Your task to perform on an android device: Open wifi settings Image 0: 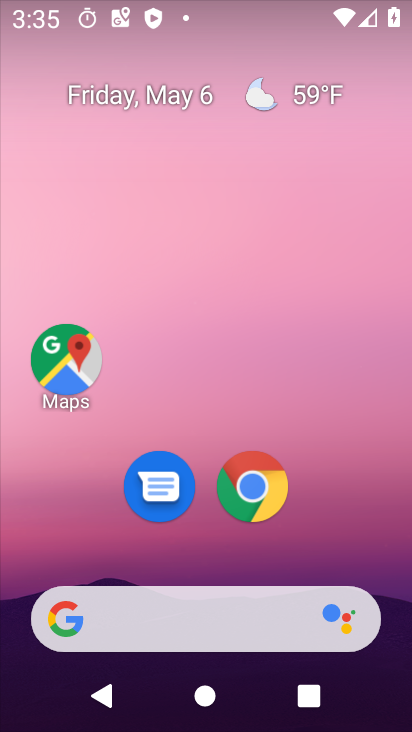
Step 0: drag from (317, 528) to (224, 84)
Your task to perform on an android device: Open wifi settings Image 1: 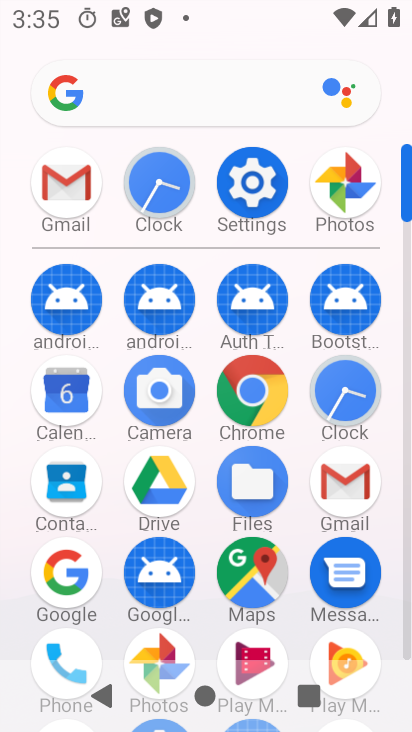
Step 1: click (242, 171)
Your task to perform on an android device: Open wifi settings Image 2: 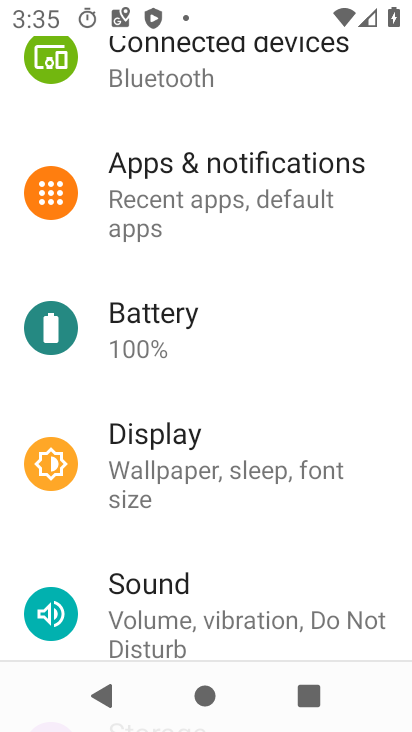
Step 2: drag from (230, 301) to (241, 713)
Your task to perform on an android device: Open wifi settings Image 3: 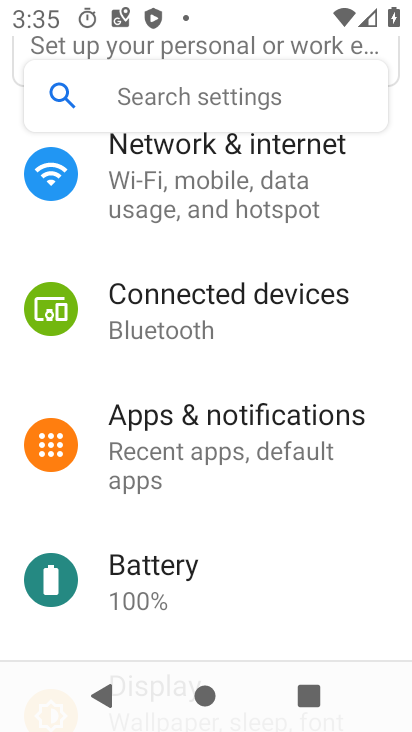
Step 3: click (204, 176)
Your task to perform on an android device: Open wifi settings Image 4: 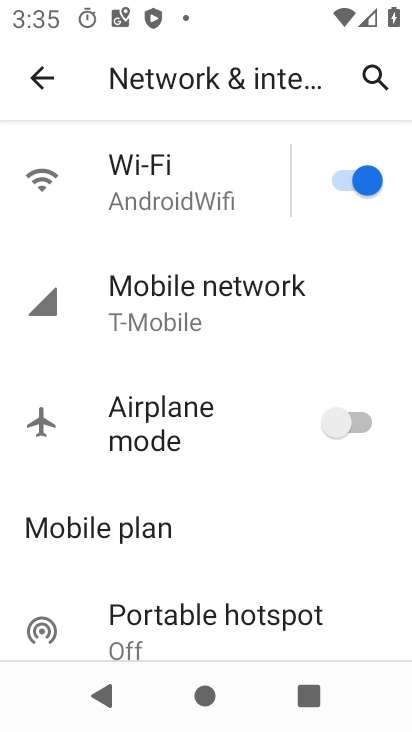
Step 4: click (177, 173)
Your task to perform on an android device: Open wifi settings Image 5: 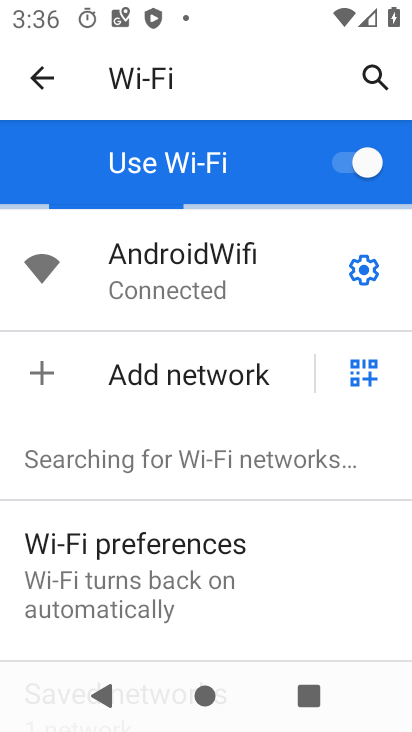
Step 5: task complete